Your task to perform on an android device: find which apps use the phone's location Image 0: 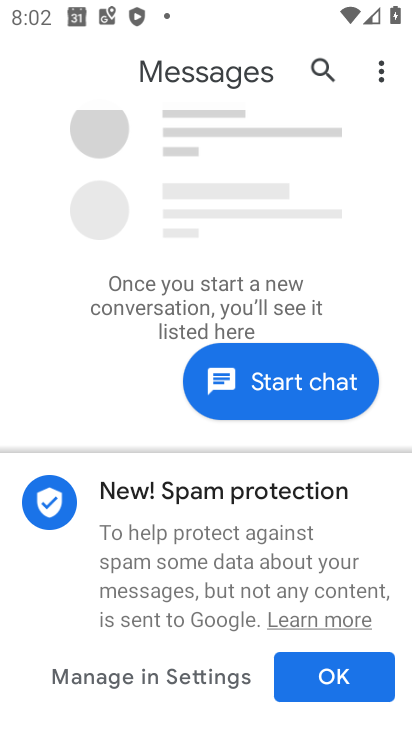
Step 0: press home button
Your task to perform on an android device: find which apps use the phone's location Image 1: 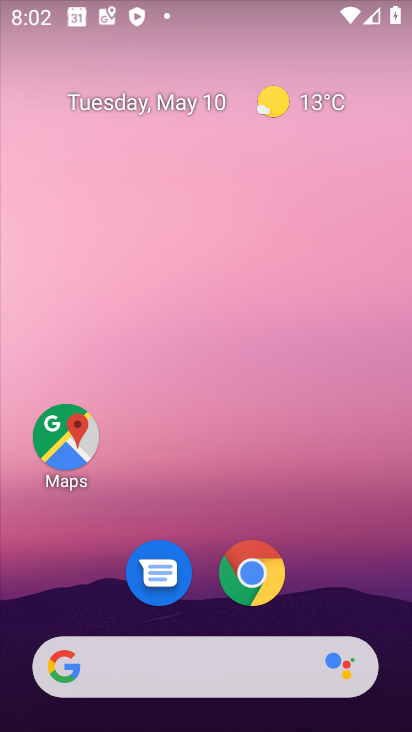
Step 1: drag from (344, 599) to (274, 10)
Your task to perform on an android device: find which apps use the phone's location Image 2: 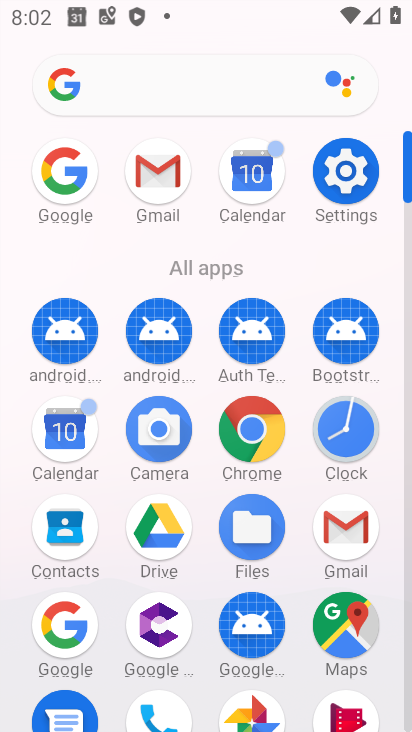
Step 2: click (342, 187)
Your task to perform on an android device: find which apps use the phone's location Image 3: 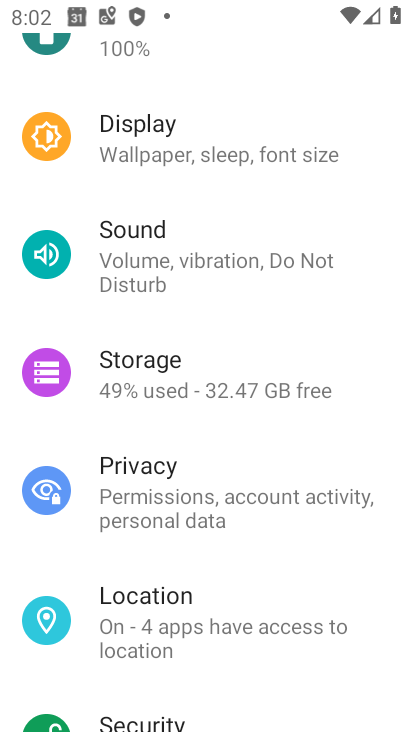
Step 3: click (165, 619)
Your task to perform on an android device: find which apps use the phone's location Image 4: 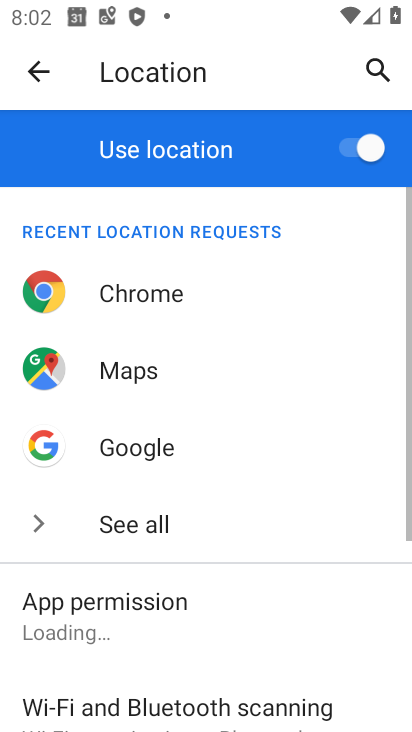
Step 4: click (165, 619)
Your task to perform on an android device: find which apps use the phone's location Image 5: 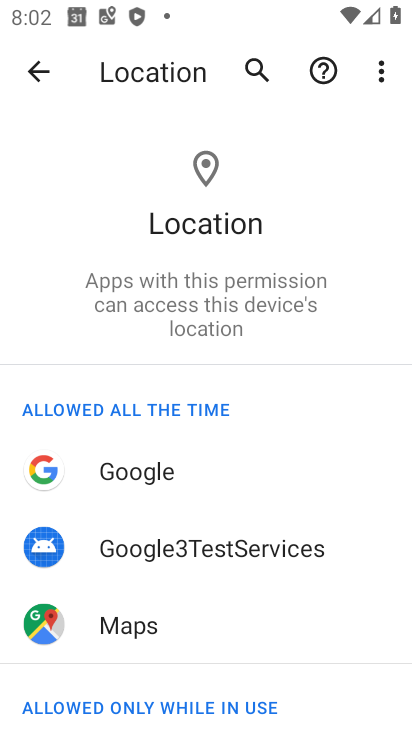
Step 5: task complete